Your task to perform on an android device: snooze an email in the gmail app Image 0: 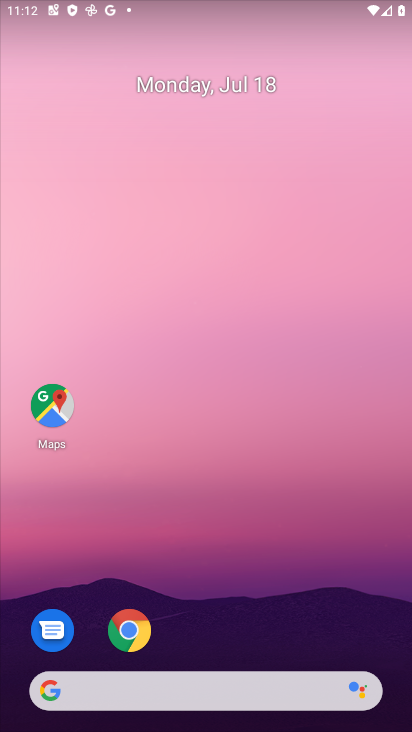
Step 0: drag from (334, 623) to (156, 13)
Your task to perform on an android device: snooze an email in the gmail app Image 1: 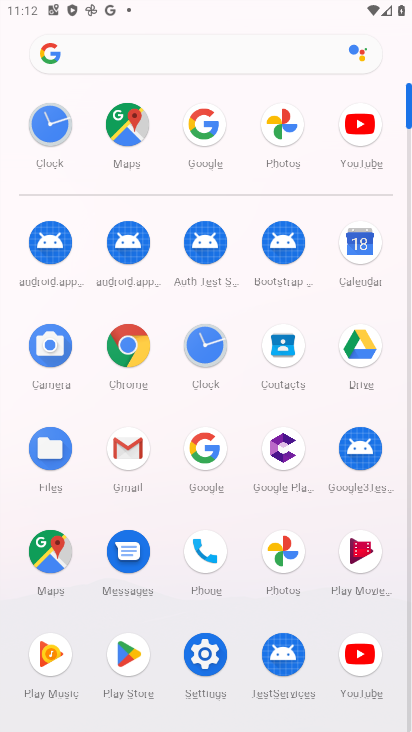
Step 1: click (130, 442)
Your task to perform on an android device: snooze an email in the gmail app Image 2: 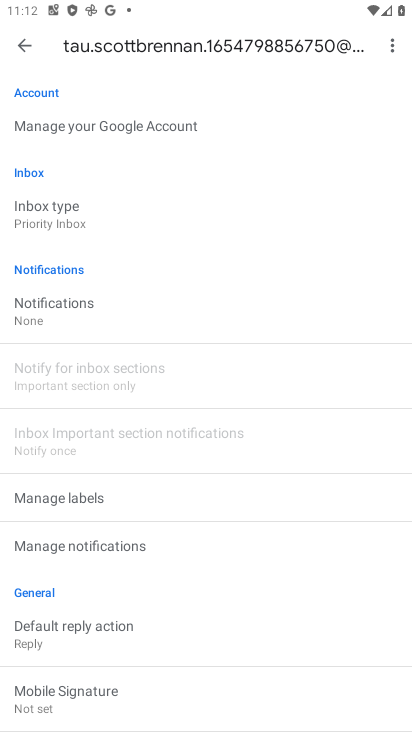
Step 2: press back button
Your task to perform on an android device: snooze an email in the gmail app Image 3: 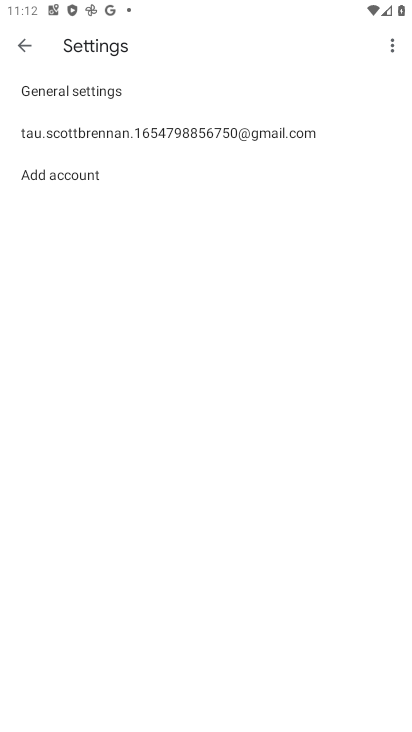
Step 3: press back button
Your task to perform on an android device: snooze an email in the gmail app Image 4: 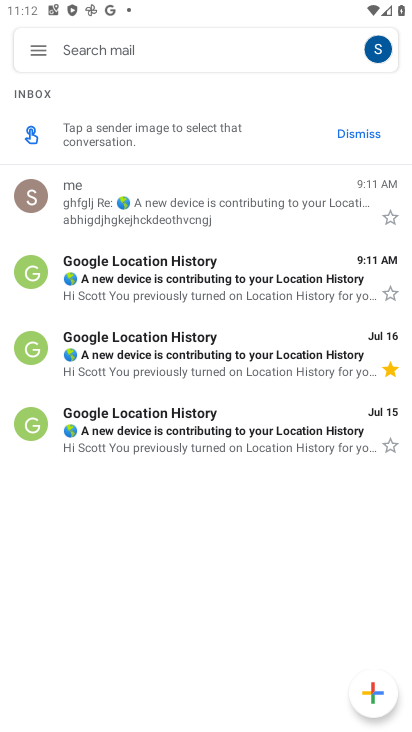
Step 4: click (243, 219)
Your task to perform on an android device: snooze an email in the gmail app Image 5: 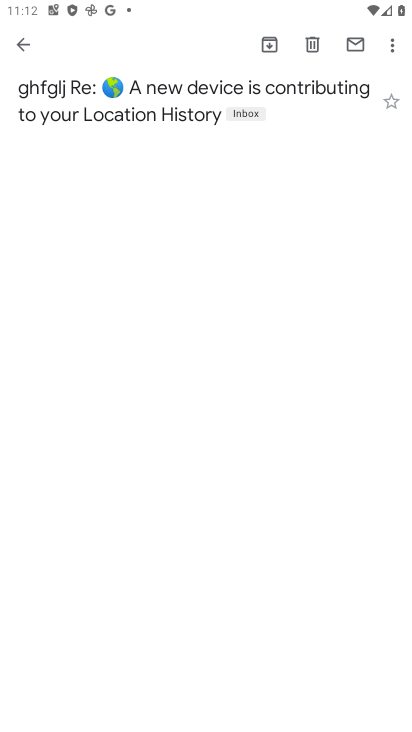
Step 5: click (389, 41)
Your task to perform on an android device: snooze an email in the gmail app Image 6: 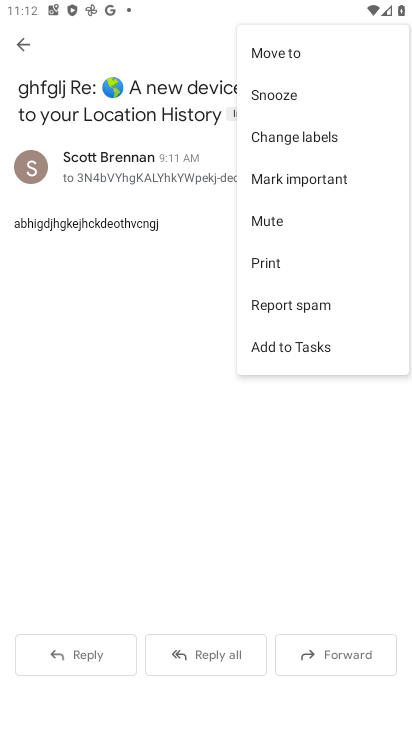
Step 6: click (291, 102)
Your task to perform on an android device: snooze an email in the gmail app Image 7: 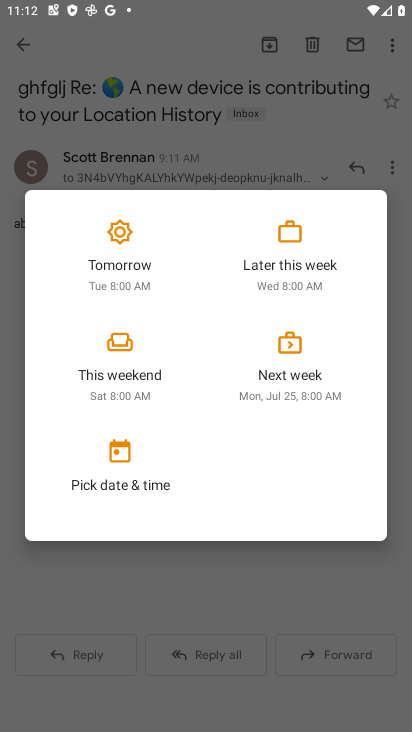
Step 7: click (302, 238)
Your task to perform on an android device: snooze an email in the gmail app Image 8: 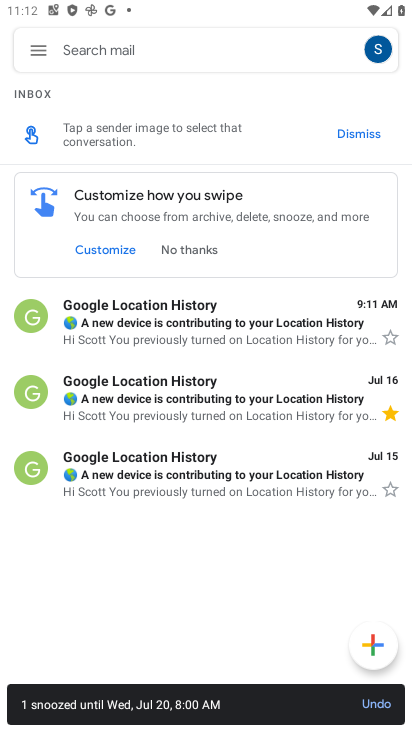
Step 8: task complete